Your task to perform on an android device: add a contact Image 0: 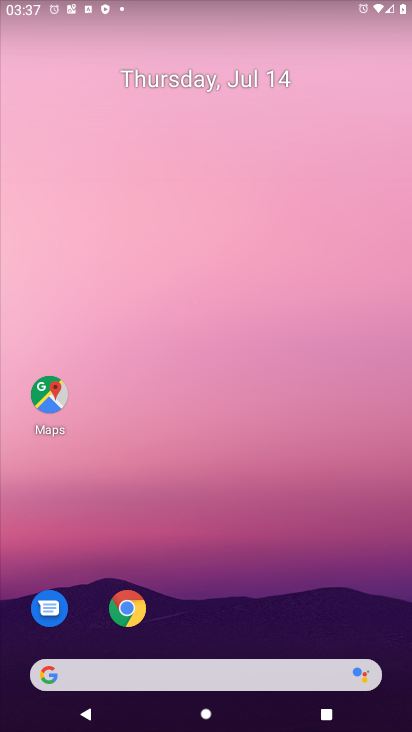
Step 0: drag from (390, 661) to (317, 228)
Your task to perform on an android device: add a contact Image 1: 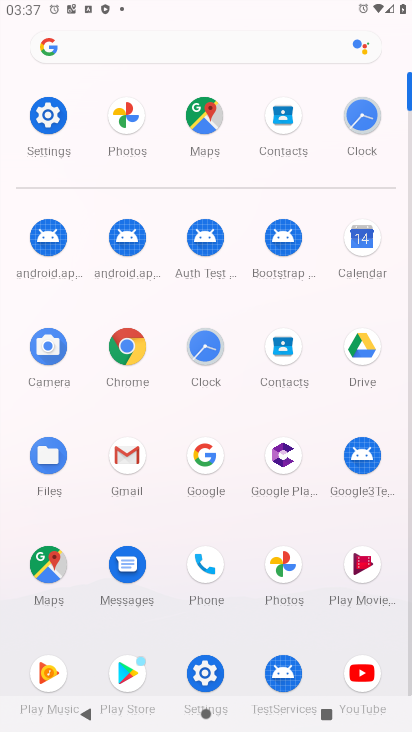
Step 1: click (279, 346)
Your task to perform on an android device: add a contact Image 2: 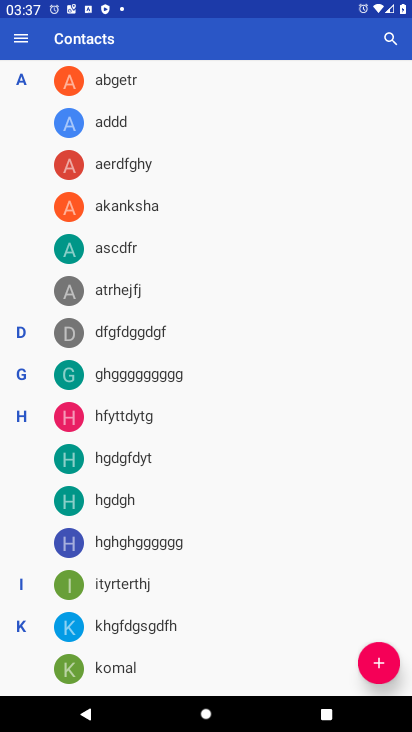
Step 2: click (377, 663)
Your task to perform on an android device: add a contact Image 3: 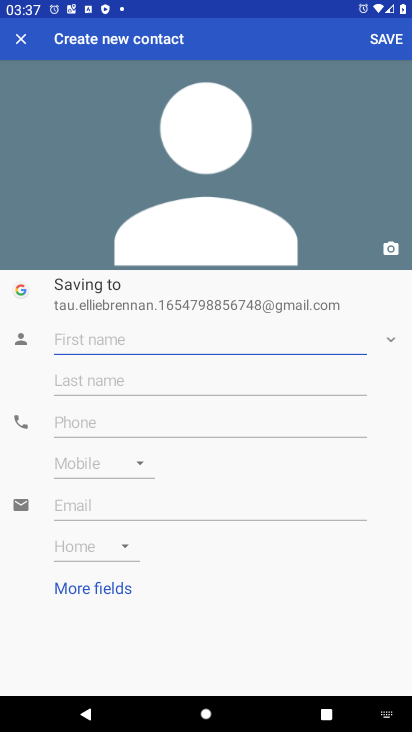
Step 3: type "mnfghdshj"
Your task to perform on an android device: add a contact Image 4: 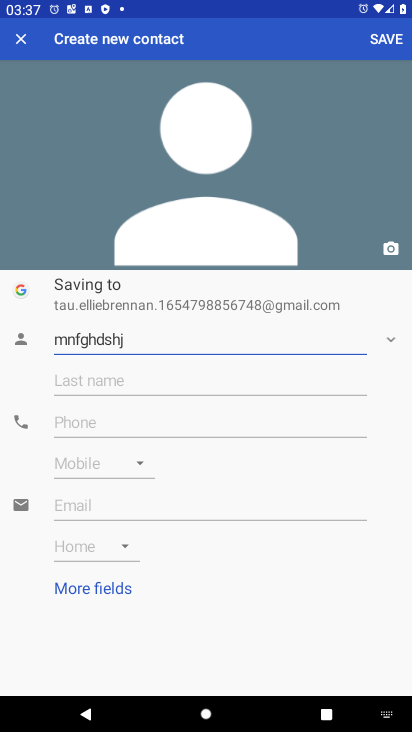
Step 4: click (108, 427)
Your task to perform on an android device: add a contact Image 5: 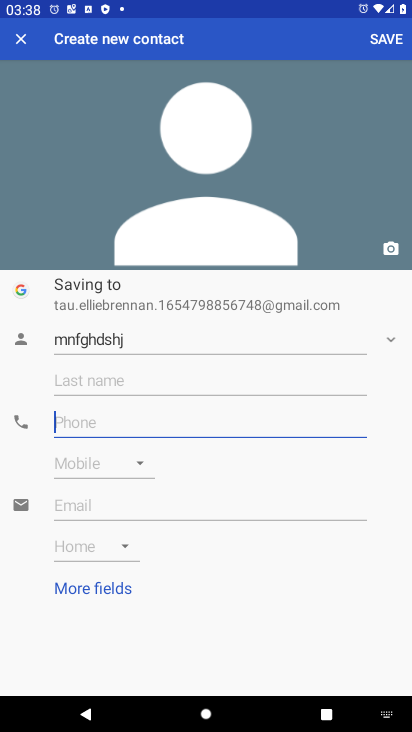
Step 5: type "0983567869"
Your task to perform on an android device: add a contact Image 6: 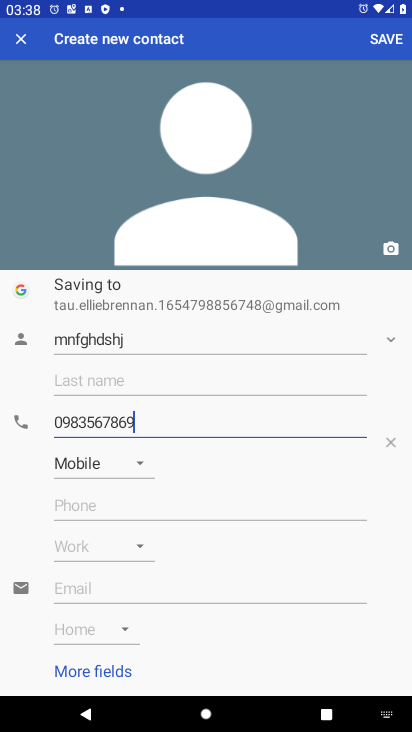
Step 6: click (385, 38)
Your task to perform on an android device: add a contact Image 7: 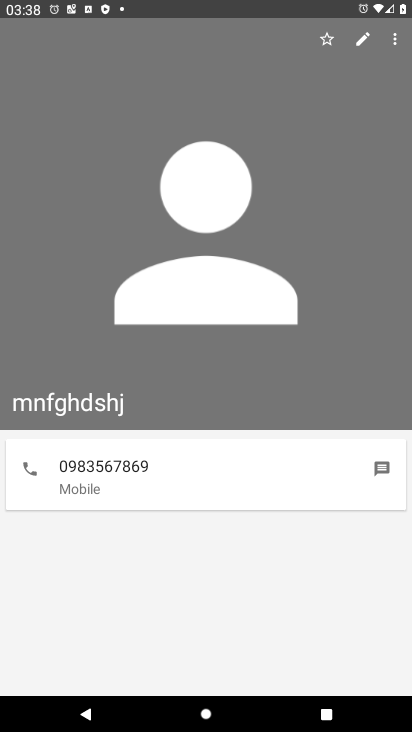
Step 7: task complete